Your task to perform on an android device: snooze an email in the gmail app Image 0: 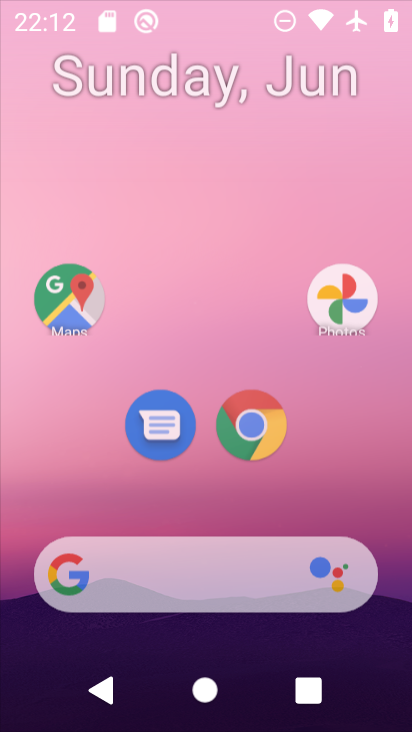
Step 0: press home button
Your task to perform on an android device: snooze an email in the gmail app Image 1: 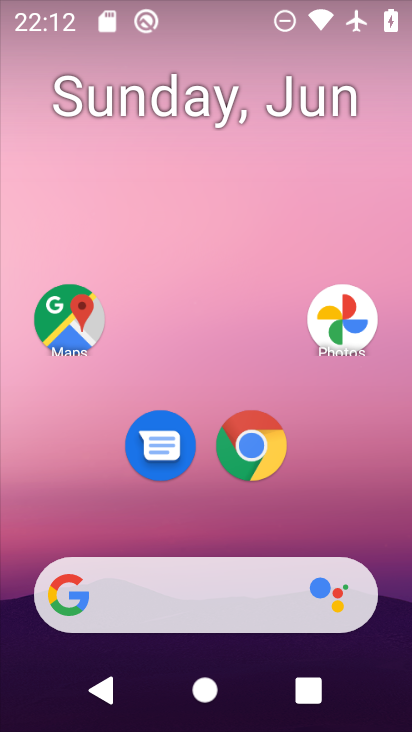
Step 1: drag from (367, 533) to (344, 211)
Your task to perform on an android device: snooze an email in the gmail app Image 2: 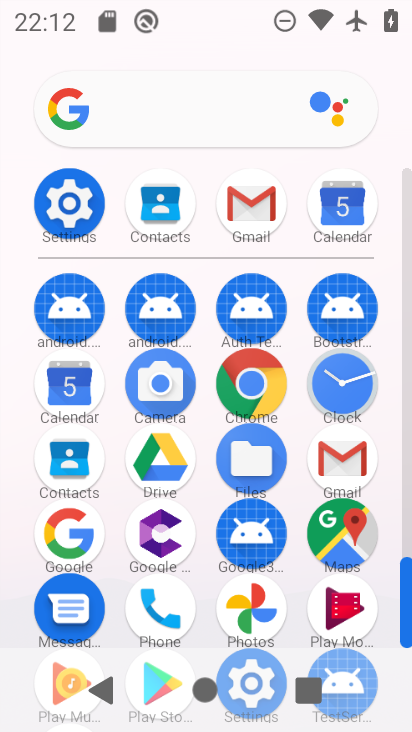
Step 2: click (245, 220)
Your task to perform on an android device: snooze an email in the gmail app Image 3: 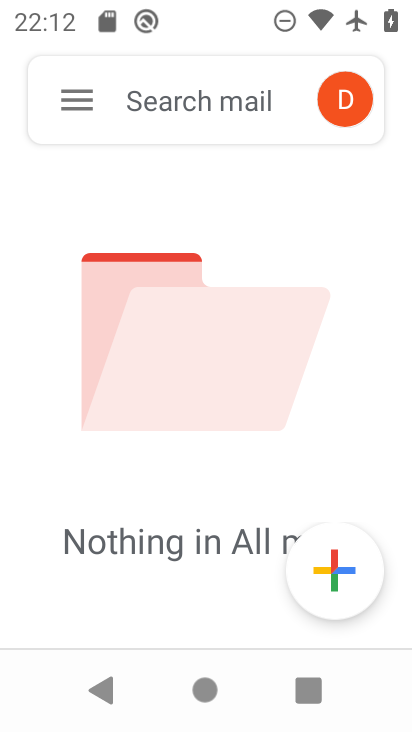
Step 3: click (91, 103)
Your task to perform on an android device: snooze an email in the gmail app Image 4: 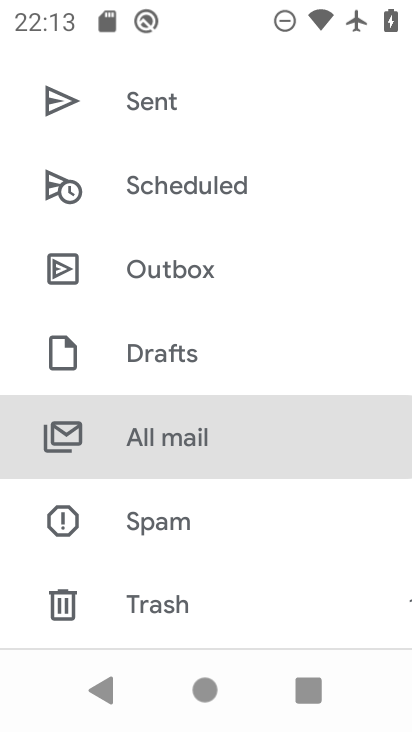
Step 4: click (182, 445)
Your task to perform on an android device: snooze an email in the gmail app Image 5: 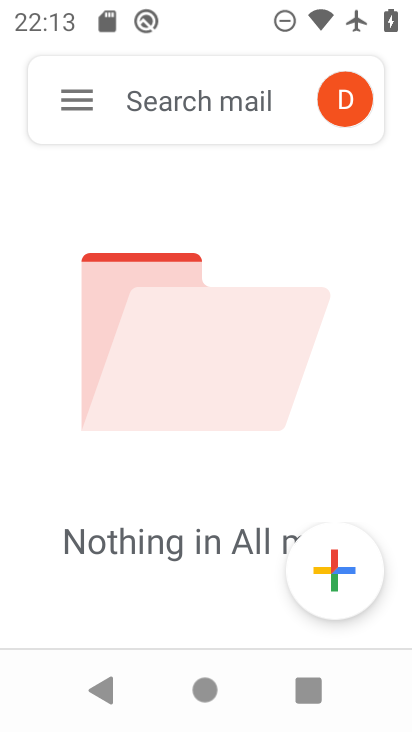
Step 5: task complete